Your task to perform on an android device: Turn on the flashlight Image 0: 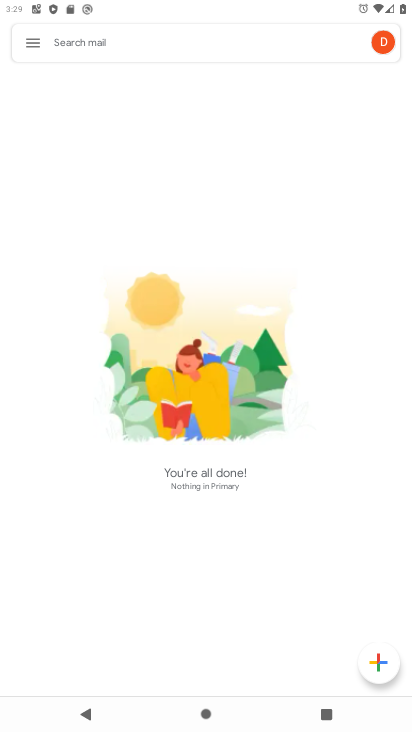
Step 0: press home button
Your task to perform on an android device: Turn on the flashlight Image 1: 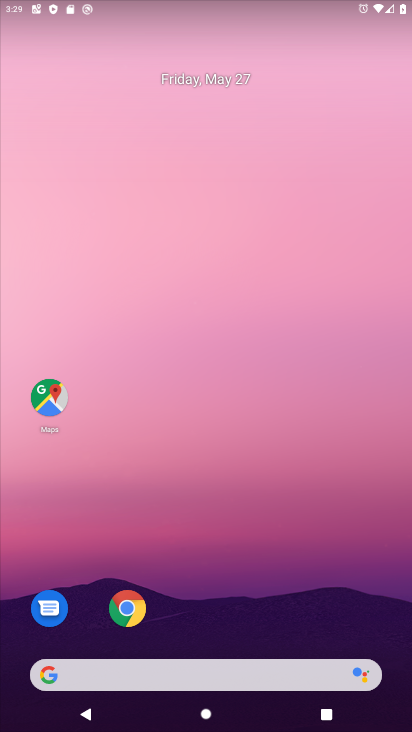
Step 1: drag from (202, 16) to (225, 459)
Your task to perform on an android device: Turn on the flashlight Image 2: 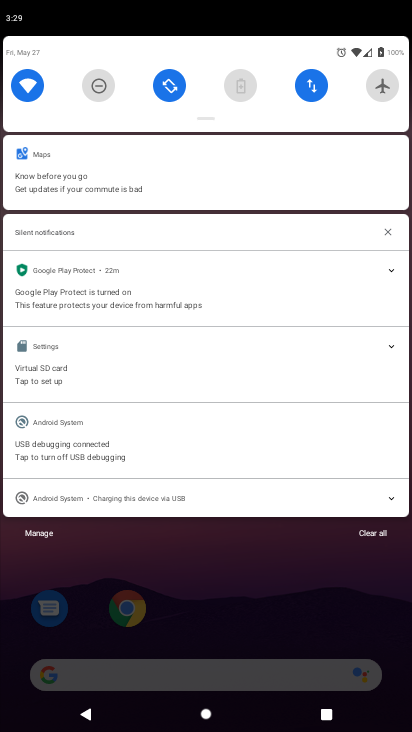
Step 2: drag from (246, 87) to (276, 480)
Your task to perform on an android device: Turn on the flashlight Image 3: 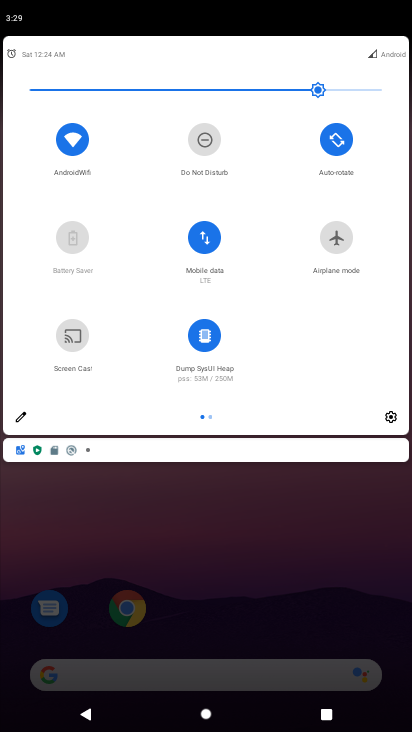
Step 3: drag from (360, 286) to (7, 394)
Your task to perform on an android device: Turn on the flashlight Image 4: 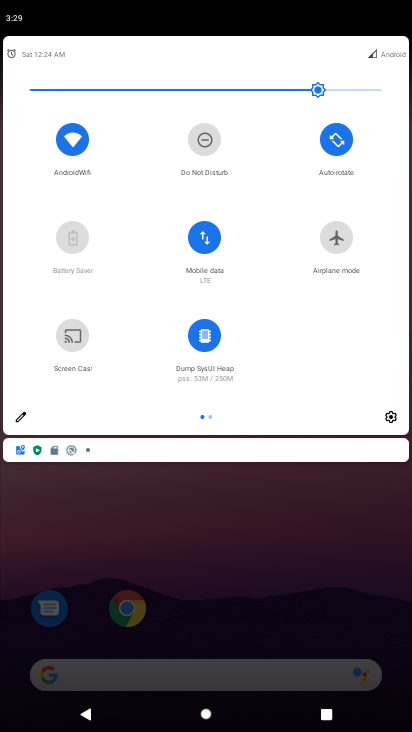
Step 4: drag from (241, 300) to (4, 418)
Your task to perform on an android device: Turn on the flashlight Image 5: 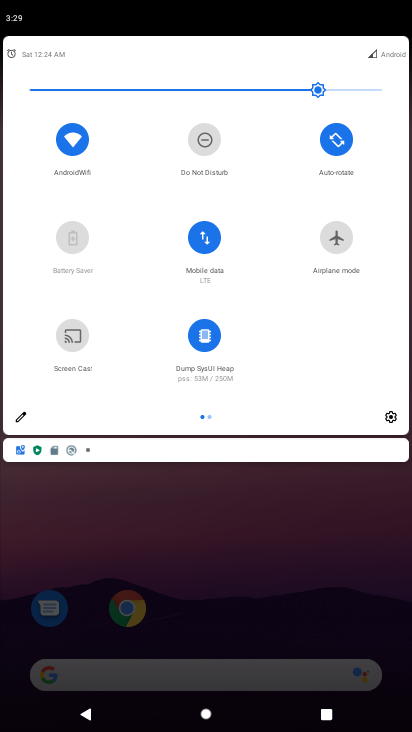
Step 5: click (21, 416)
Your task to perform on an android device: Turn on the flashlight Image 6: 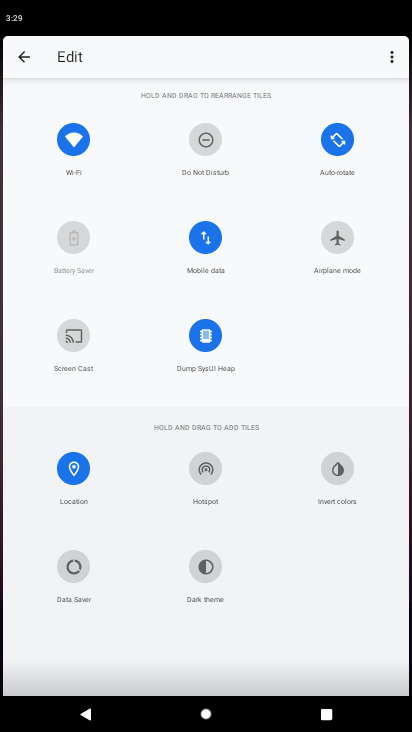
Step 6: task complete